Your task to perform on an android device: stop showing notifications on the lock screen Image 0: 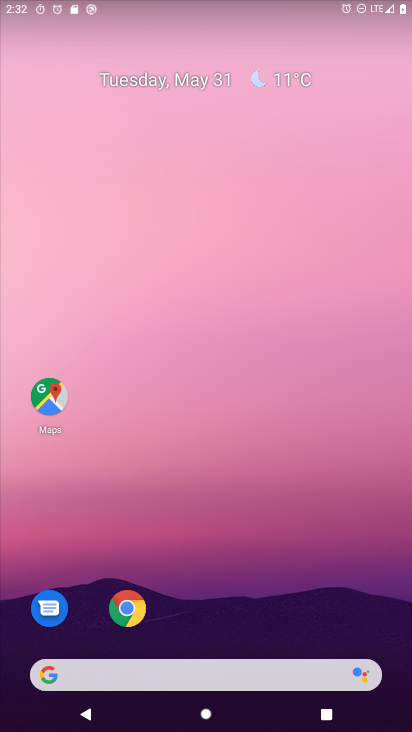
Step 0: drag from (255, 635) to (268, 1)
Your task to perform on an android device: stop showing notifications on the lock screen Image 1: 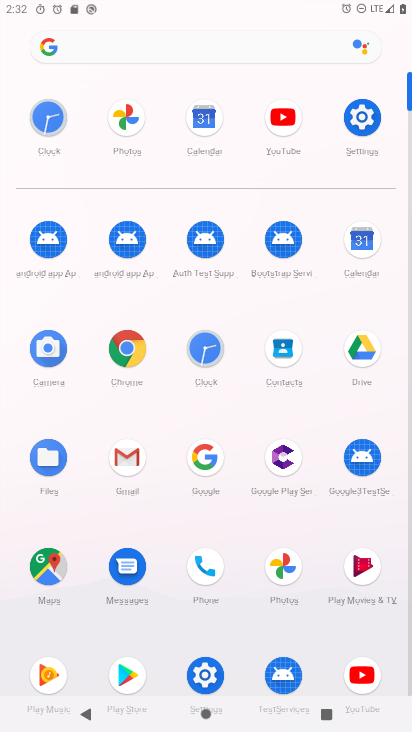
Step 1: click (360, 125)
Your task to perform on an android device: stop showing notifications on the lock screen Image 2: 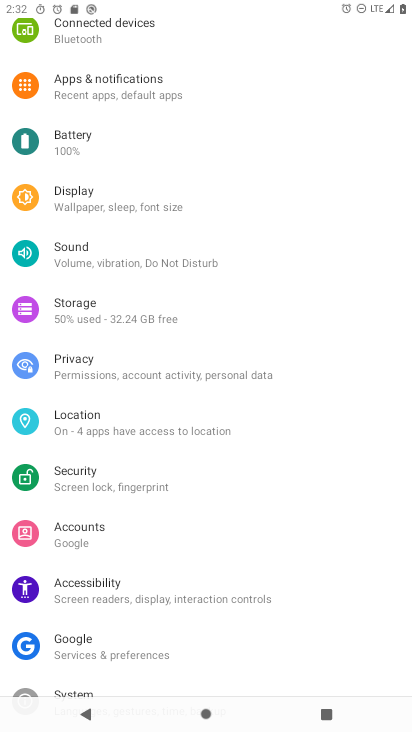
Step 2: click (124, 94)
Your task to perform on an android device: stop showing notifications on the lock screen Image 3: 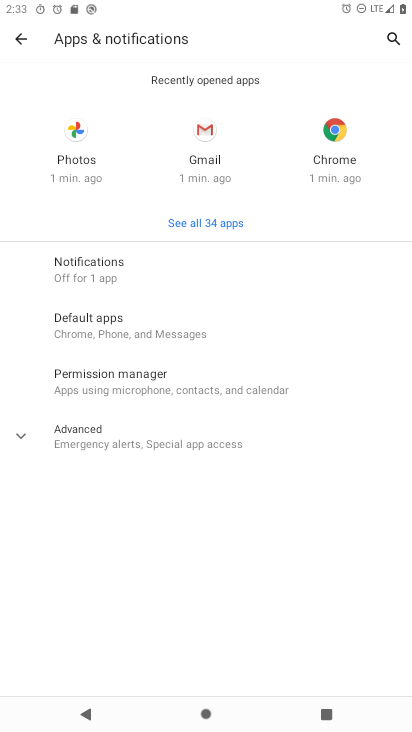
Step 3: click (81, 276)
Your task to perform on an android device: stop showing notifications on the lock screen Image 4: 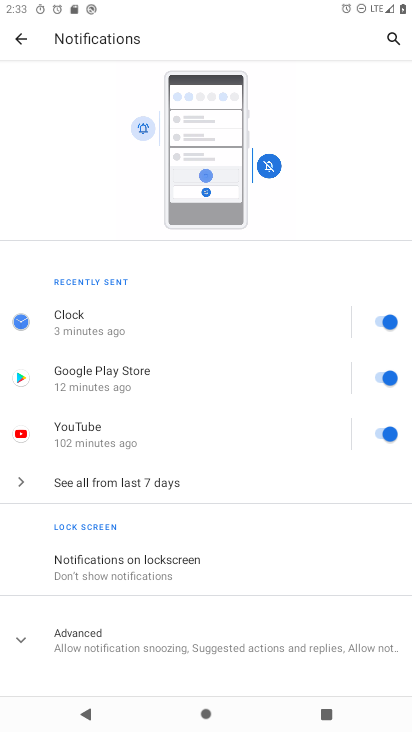
Step 4: click (115, 564)
Your task to perform on an android device: stop showing notifications on the lock screen Image 5: 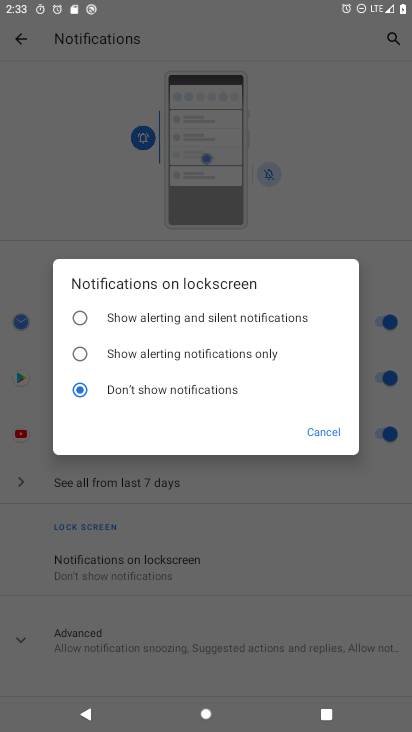
Step 5: task complete